Your task to perform on an android device: Open network settings Image 0: 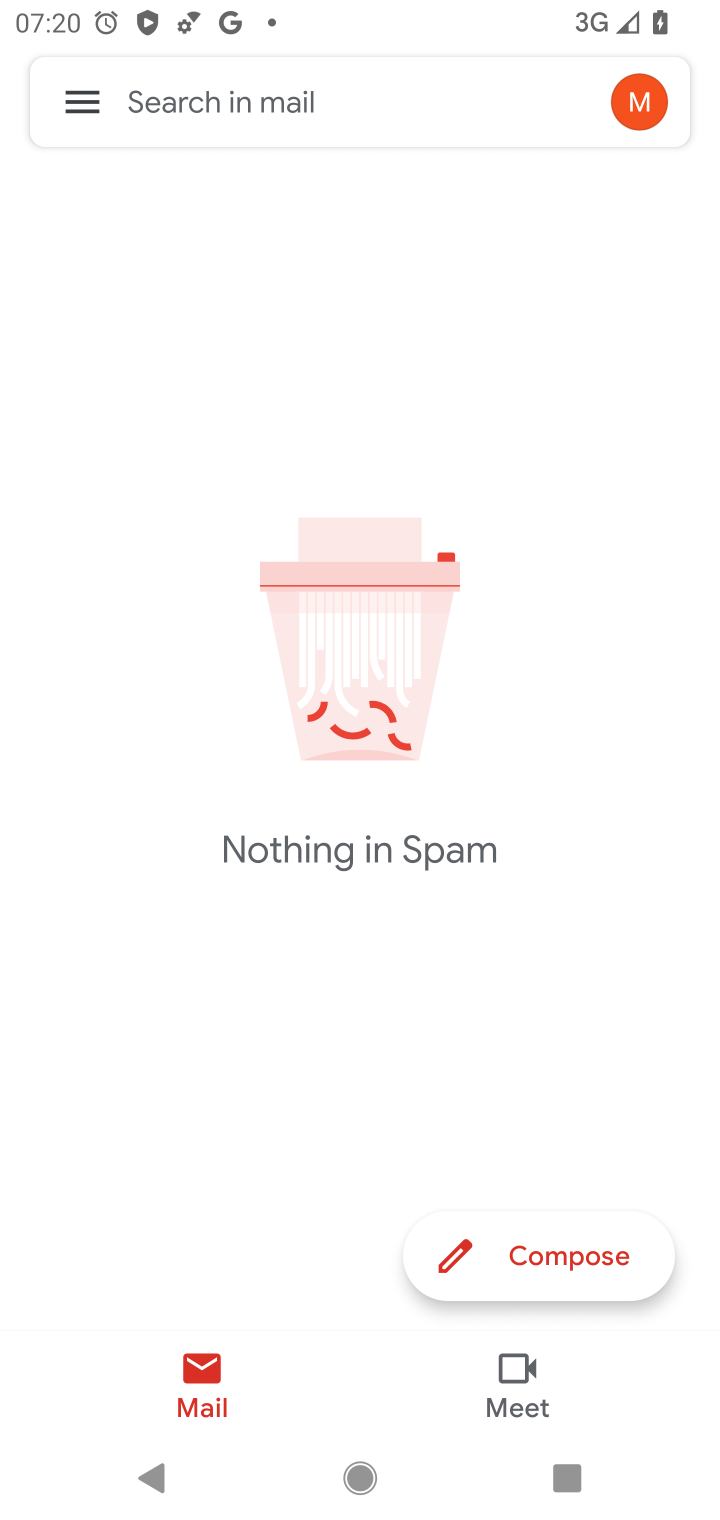
Step 0: press home button
Your task to perform on an android device: Open network settings Image 1: 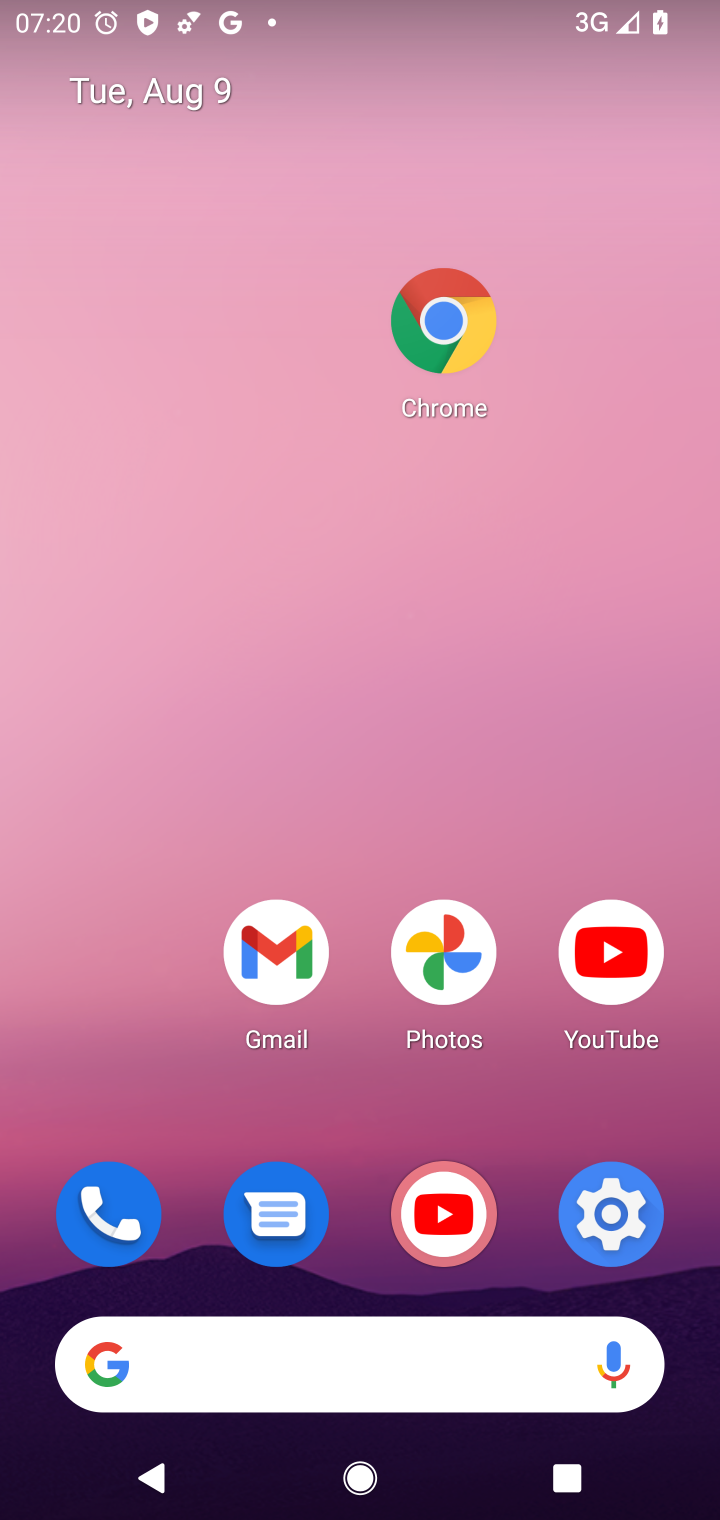
Step 1: drag from (524, 1280) to (689, 511)
Your task to perform on an android device: Open network settings Image 2: 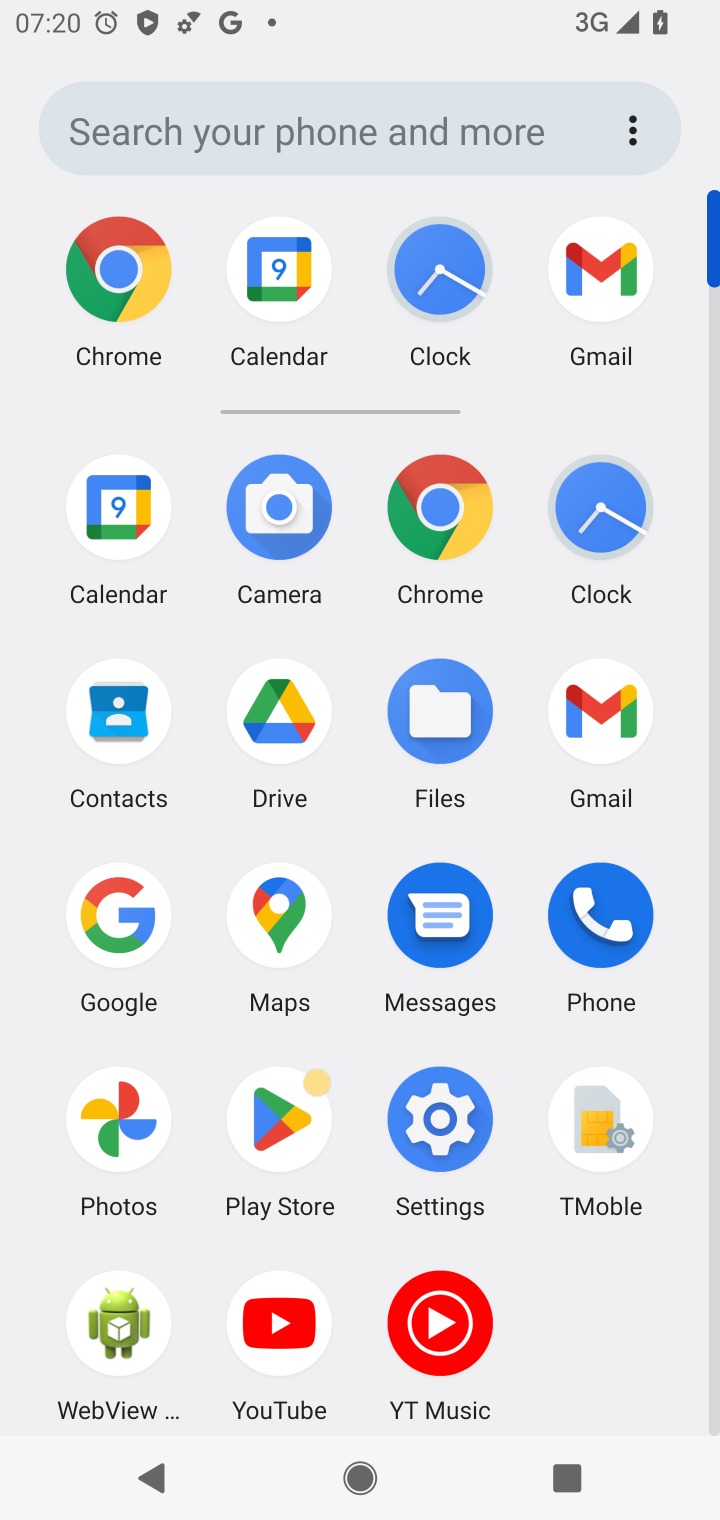
Step 2: click (438, 1123)
Your task to perform on an android device: Open network settings Image 3: 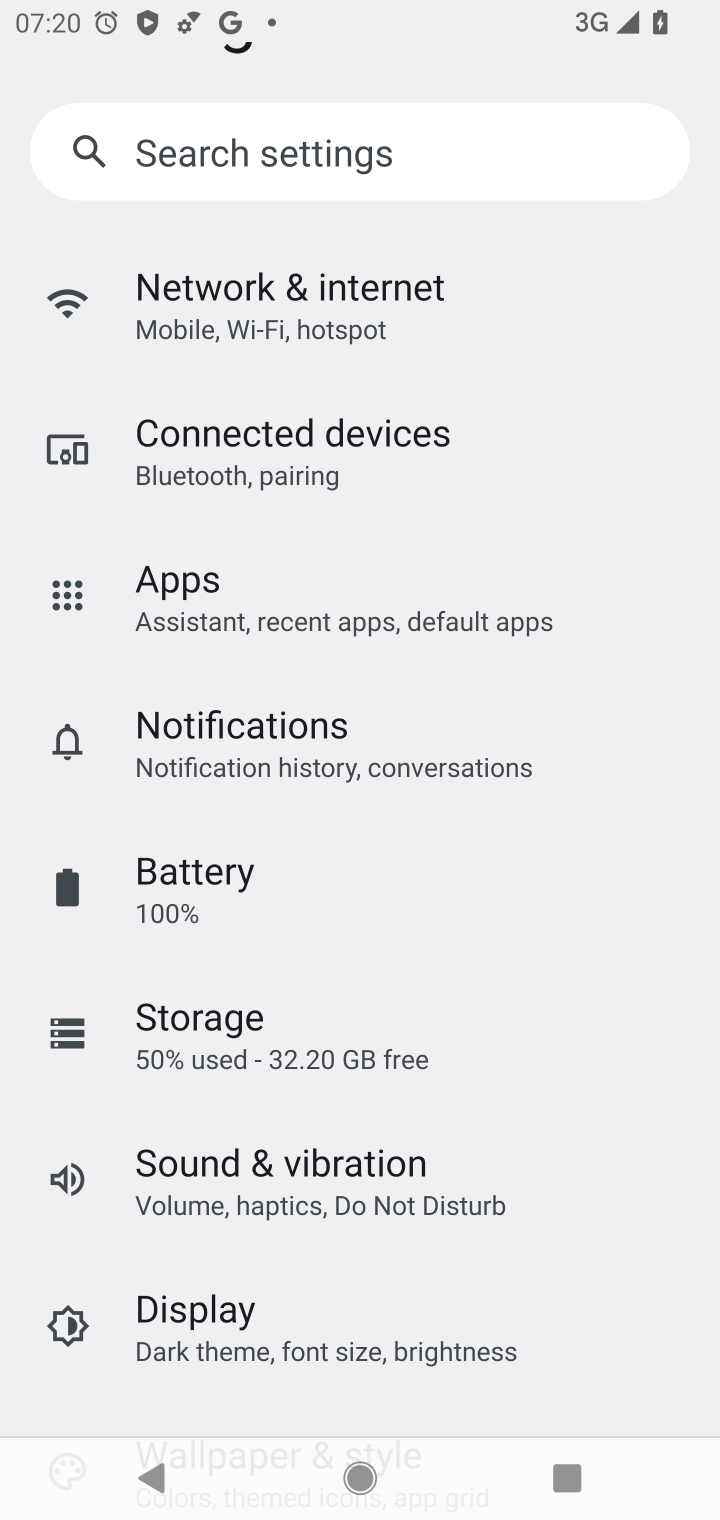
Step 3: click (313, 301)
Your task to perform on an android device: Open network settings Image 4: 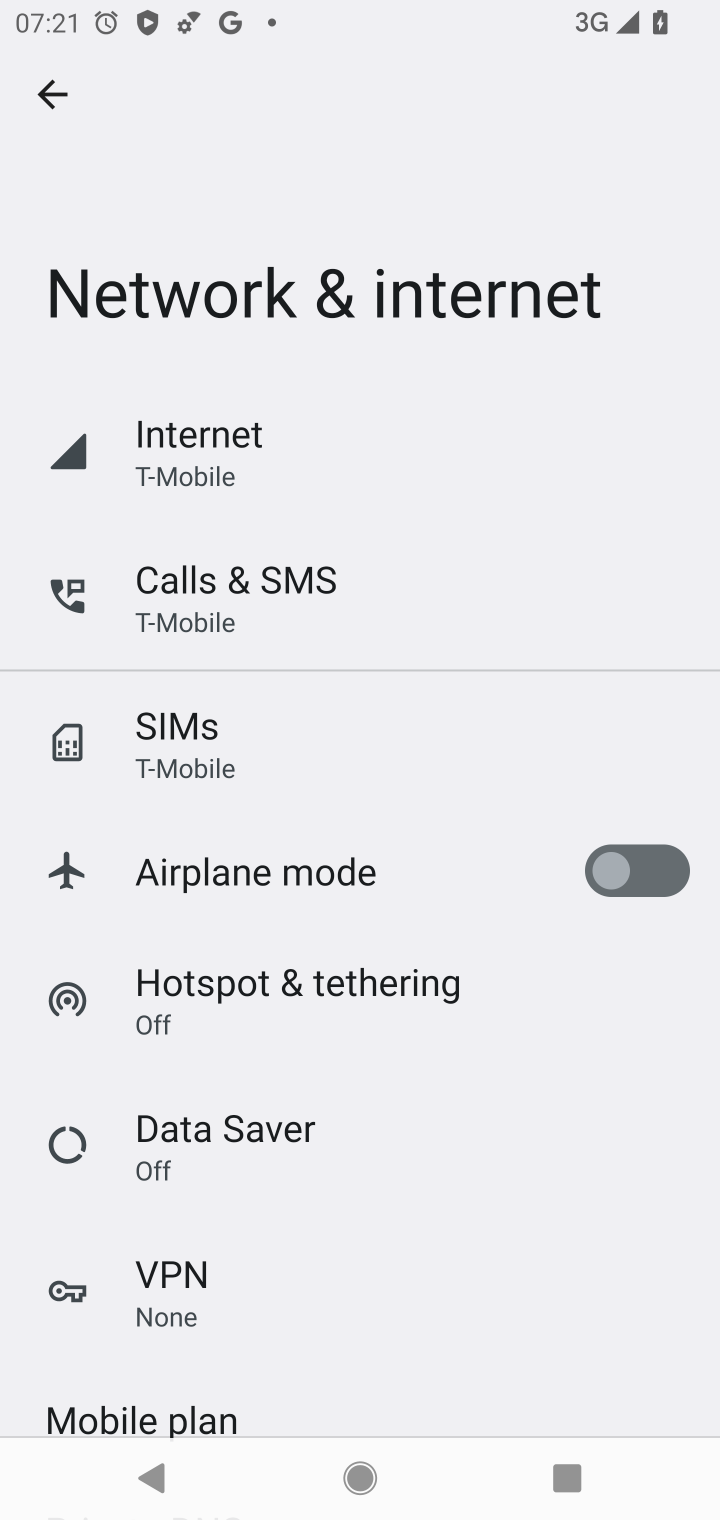
Step 4: task complete